Your task to perform on an android device: Go to internet settings Image 0: 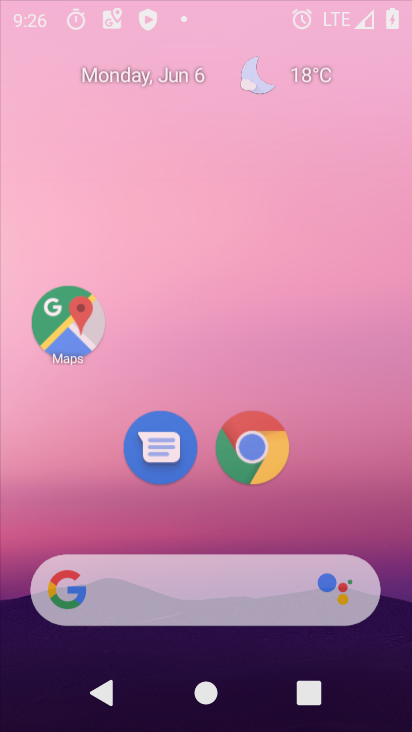
Step 0: click (229, 74)
Your task to perform on an android device: Go to internet settings Image 1: 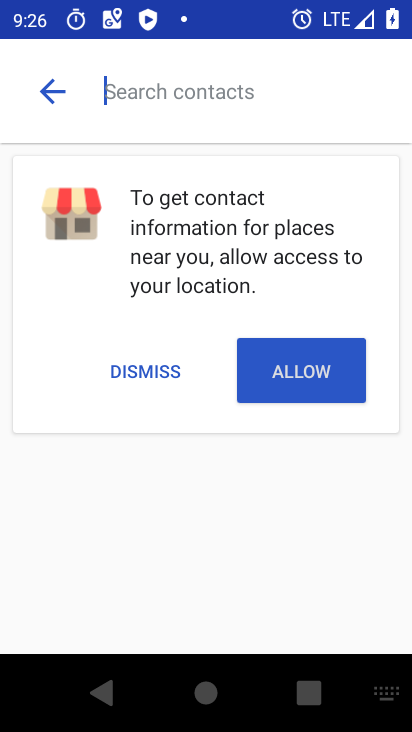
Step 1: press home button
Your task to perform on an android device: Go to internet settings Image 2: 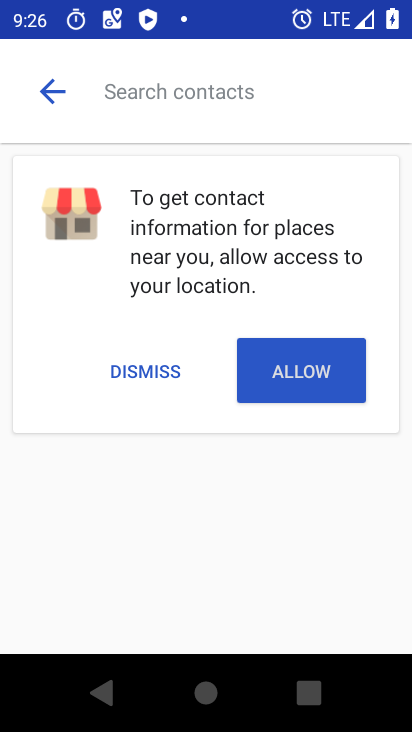
Step 2: press home button
Your task to perform on an android device: Go to internet settings Image 3: 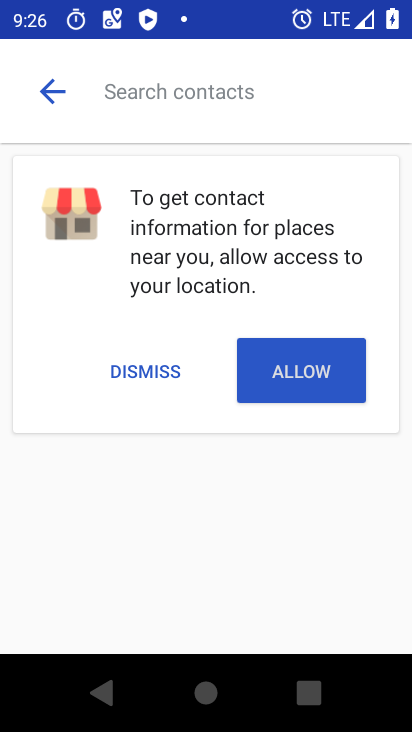
Step 3: drag from (264, 131) to (264, 27)
Your task to perform on an android device: Go to internet settings Image 4: 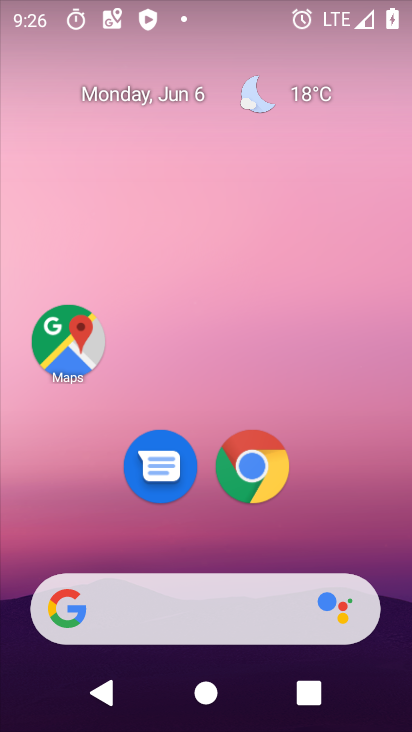
Step 4: drag from (202, 552) to (223, 152)
Your task to perform on an android device: Go to internet settings Image 5: 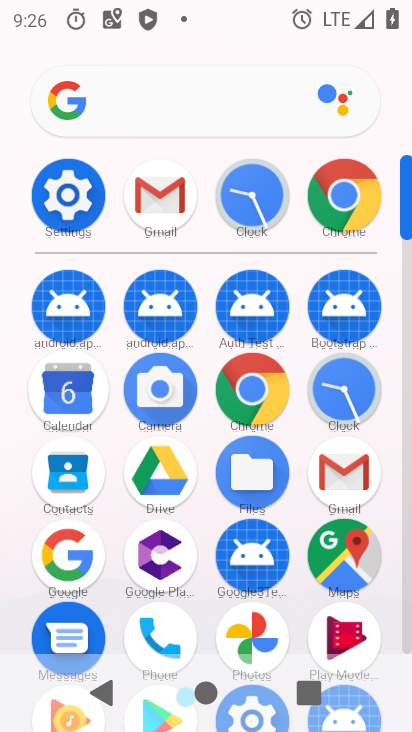
Step 5: click (63, 181)
Your task to perform on an android device: Go to internet settings Image 6: 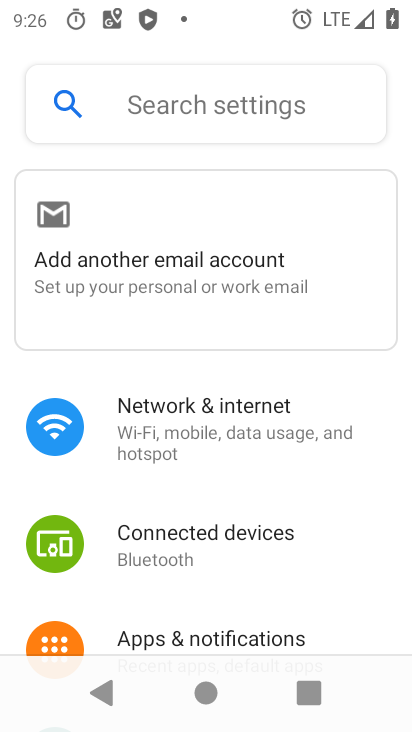
Step 6: click (182, 432)
Your task to perform on an android device: Go to internet settings Image 7: 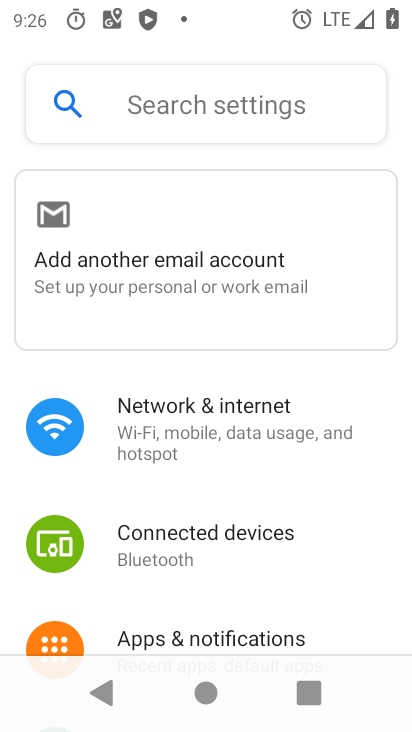
Step 7: click (182, 432)
Your task to perform on an android device: Go to internet settings Image 8: 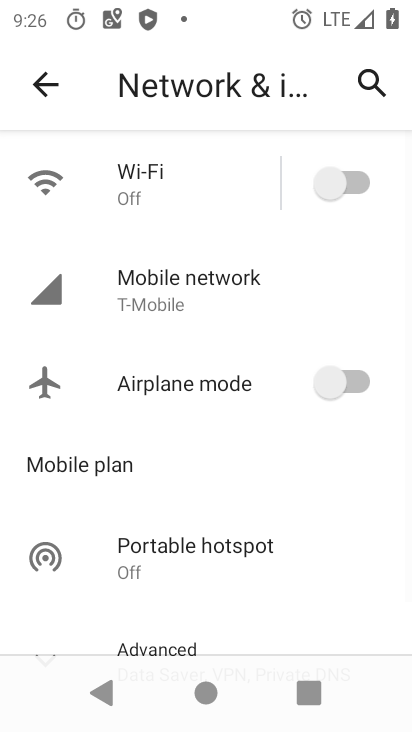
Step 8: task complete